Your task to perform on an android device: change alarm snooze length Image 0: 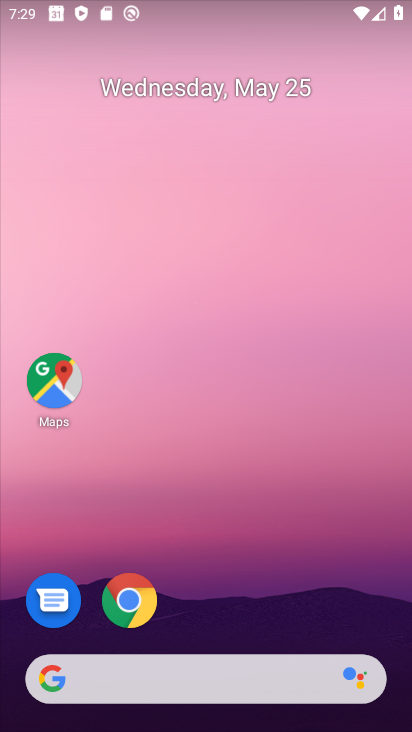
Step 0: drag from (357, 576) to (350, 107)
Your task to perform on an android device: change alarm snooze length Image 1: 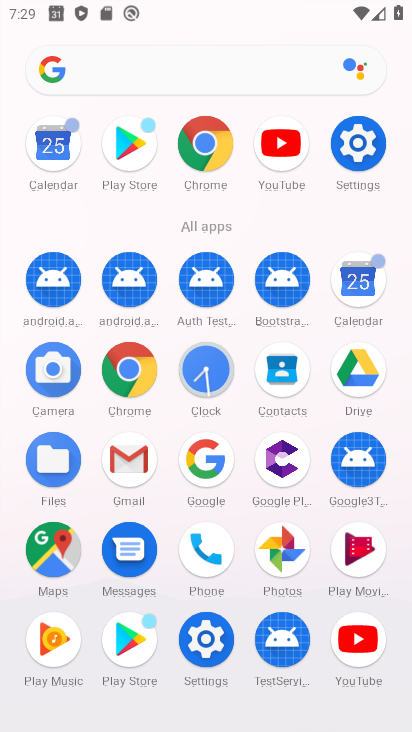
Step 1: click (212, 380)
Your task to perform on an android device: change alarm snooze length Image 2: 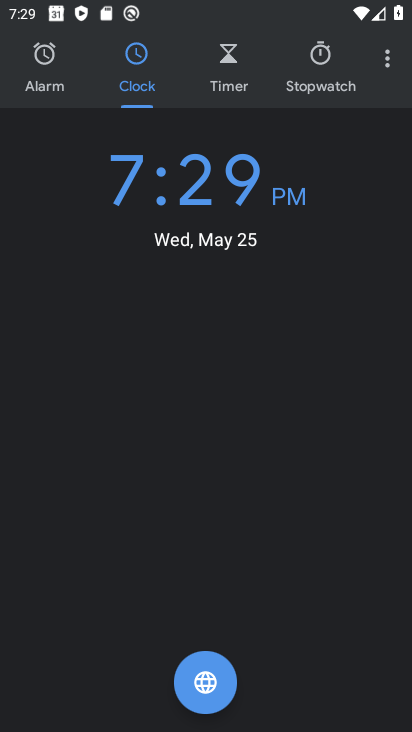
Step 2: click (390, 73)
Your task to perform on an android device: change alarm snooze length Image 3: 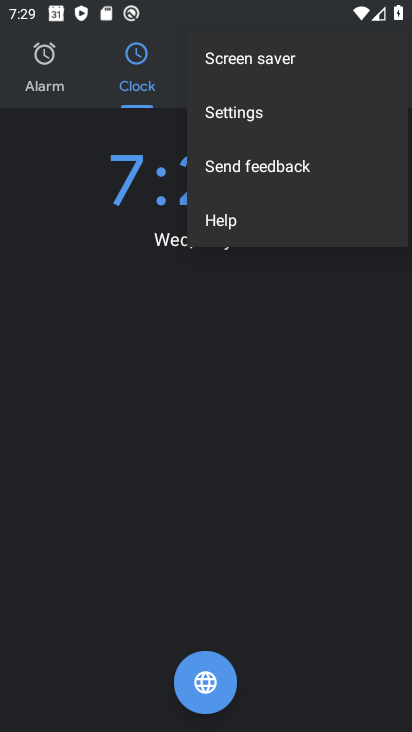
Step 3: click (323, 115)
Your task to perform on an android device: change alarm snooze length Image 4: 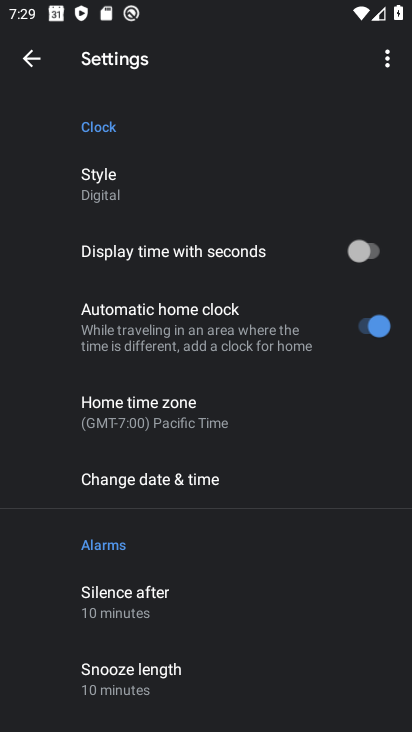
Step 4: drag from (271, 596) to (244, 253)
Your task to perform on an android device: change alarm snooze length Image 5: 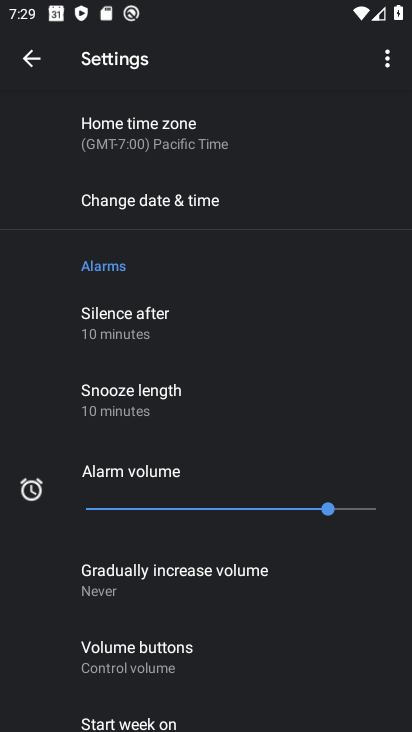
Step 5: click (162, 406)
Your task to perform on an android device: change alarm snooze length Image 6: 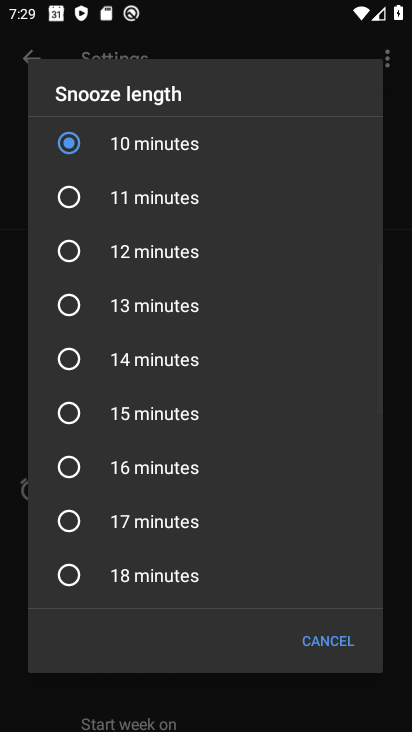
Step 6: click (142, 318)
Your task to perform on an android device: change alarm snooze length Image 7: 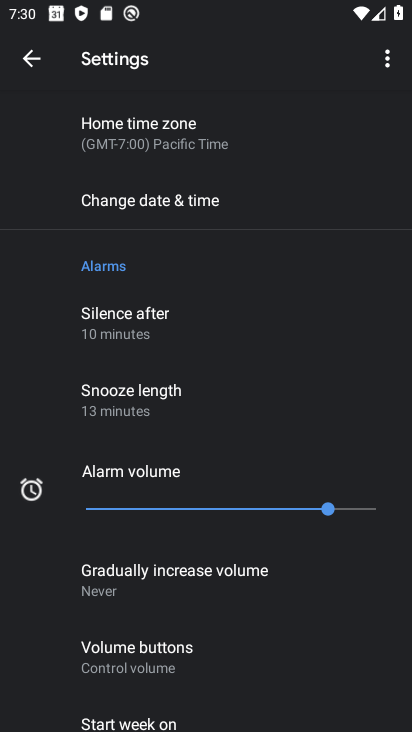
Step 7: task complete